Your task to perform on an android device: Go to calendar. Show me events next week Image 0: 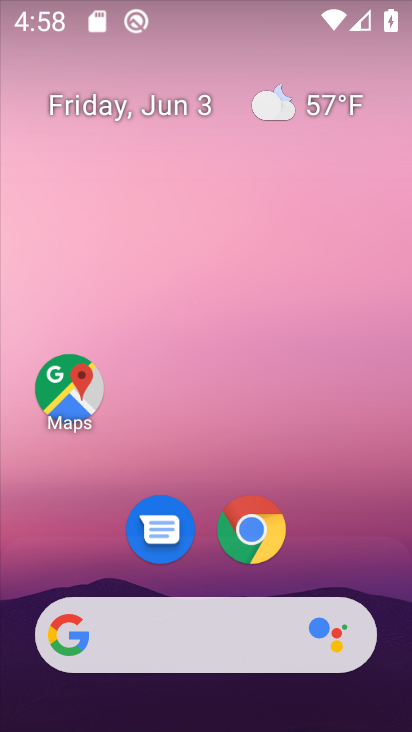
Step 0: drag from (197, 577) to (259, 141)
Your task to perform on an android device: Go to calendar. Show me events next week Image 1: 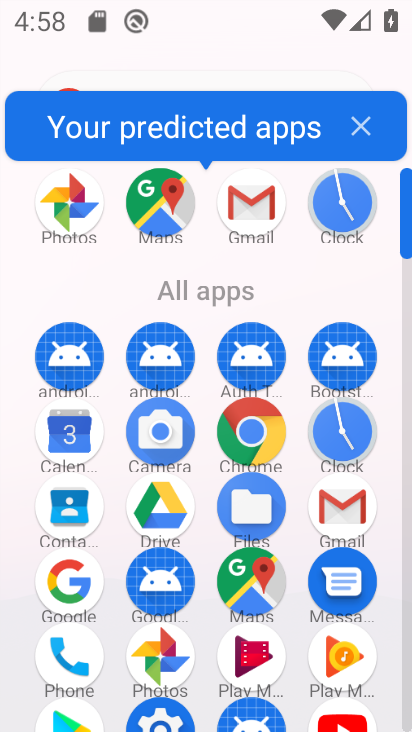
Step 1: click (69, 433)
Your task to perform on an android device: Go to calendar. Show me events next week Image 2: 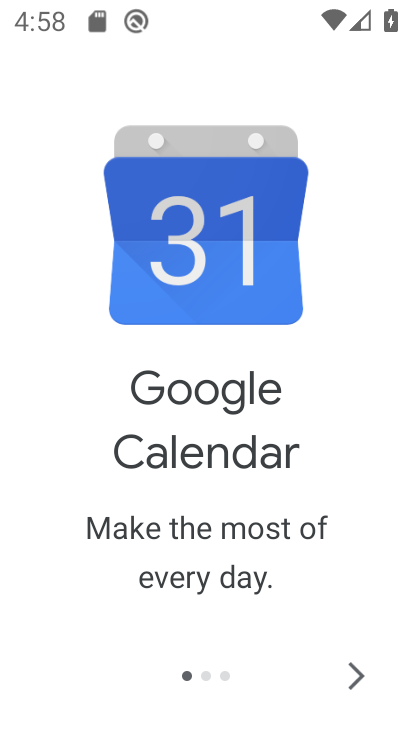
Step 2: click (358, 673)
Your task to perform on an android device: Go to calendar. Show me events next week Image 3: 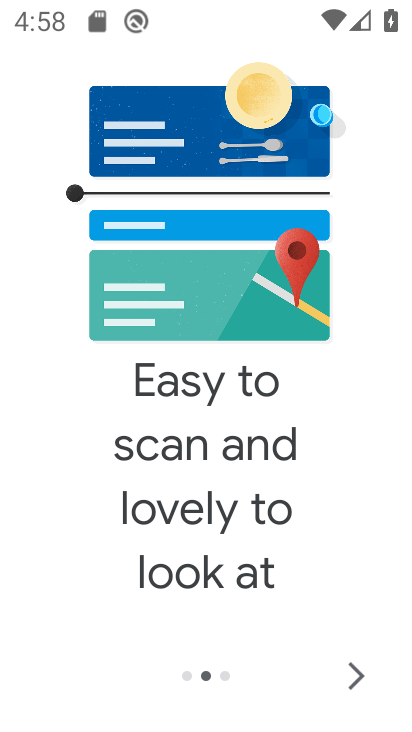
Step 3: click (358, 673)
Your task to perform on an android device: Go to calendar. Show me events next week Image 4: 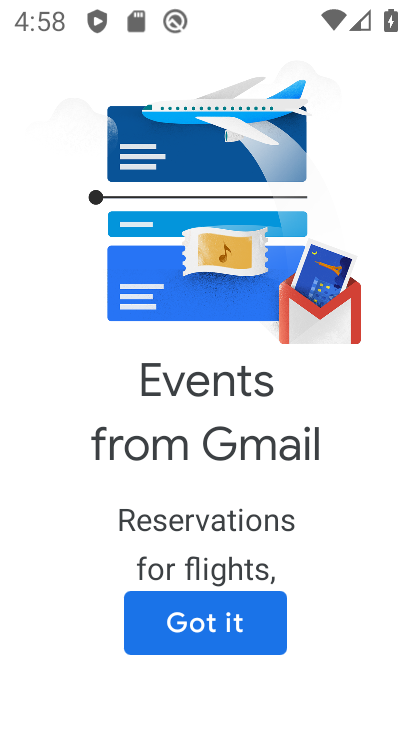
Step 4: click (188, 625)
Your task to perform on an android device: Go to calendar. Show me events next week Image 5: 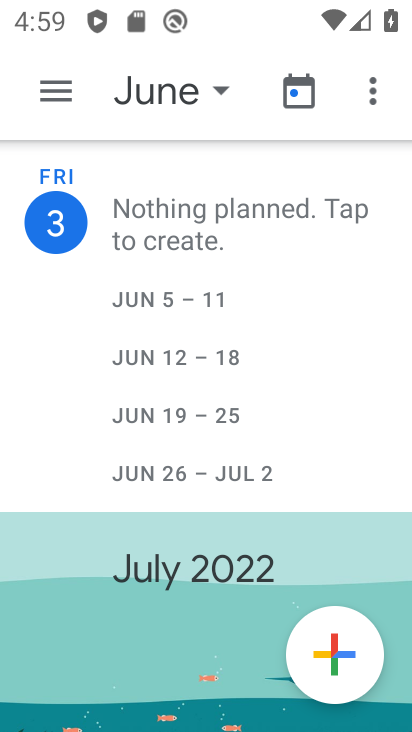
Step 5: click (67, 76)
Your task to perform on an android device: Go to calendar. Show me events next week Image 6: 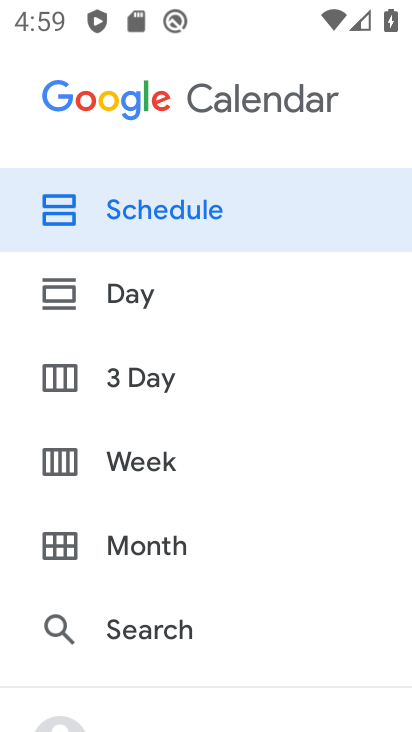
Step 6: click (124, 201)
Your task to perform on an android device: Go to calendar. Show me events next week Image 7: 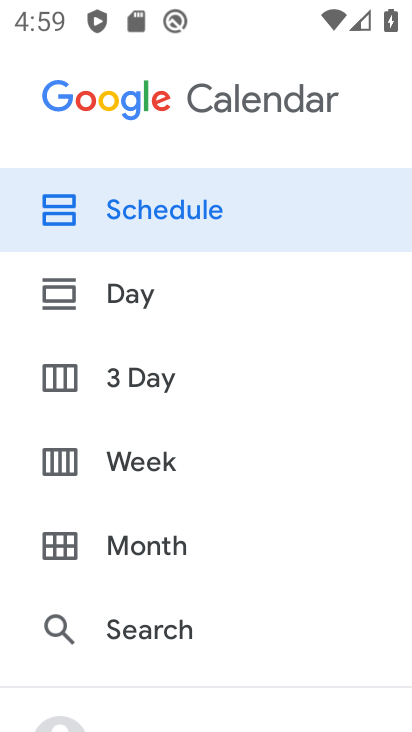
Step 7: click (143, 211)
Your task to perform on an android device: Go to calendar. Show me events next week Image 8: 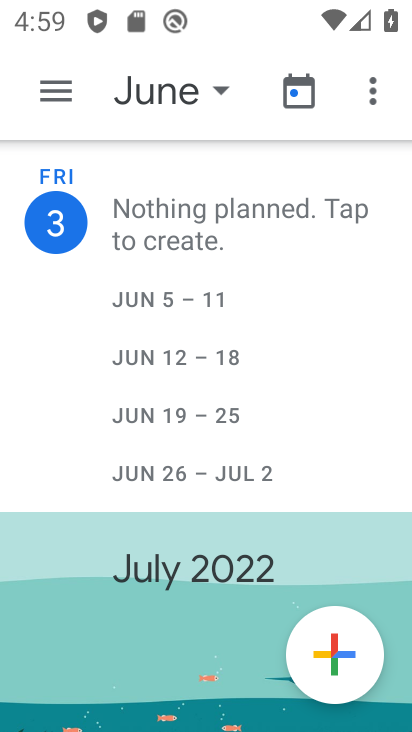
Step 8: task complete